Your task to perform on an android device: open wifi settings Image 0: 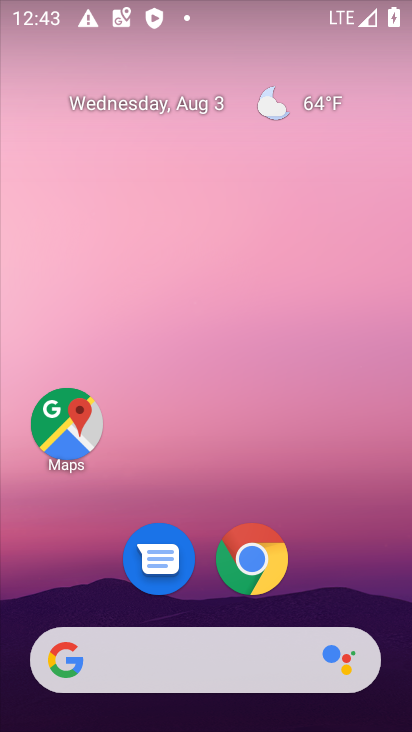
Step 0: drag from (211, 591) to (206, 59)
Your task to perform on an android device: open wifi settings Image 1: 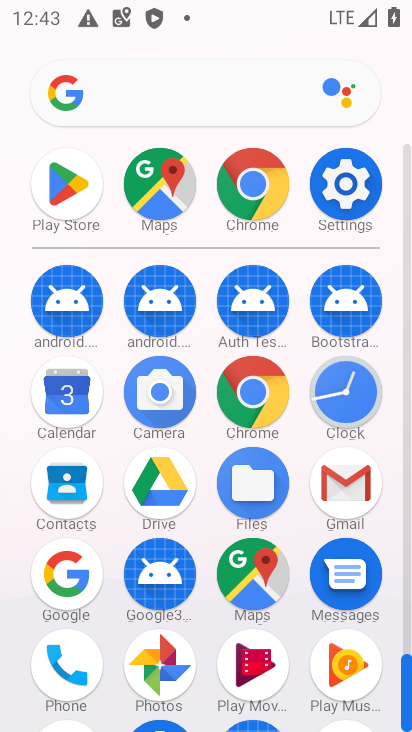
Step 1: click (346, 190)
Your task to perform on an android device: open wifi settings Image 2: 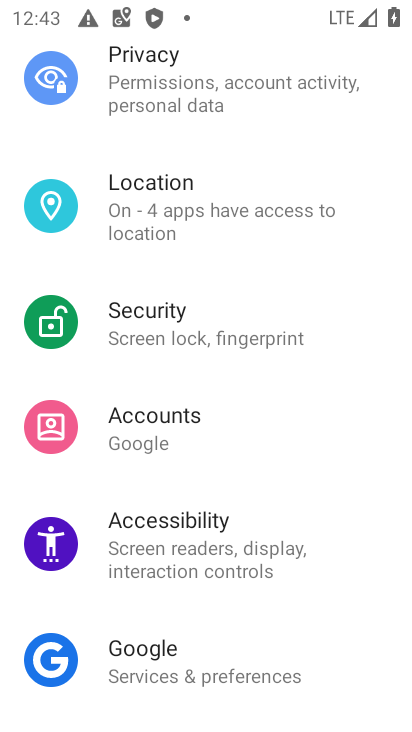
Step 2: drag from (154, 132) to (172, 528)
Your task to perform on an android device: open wifi settings Image 3: 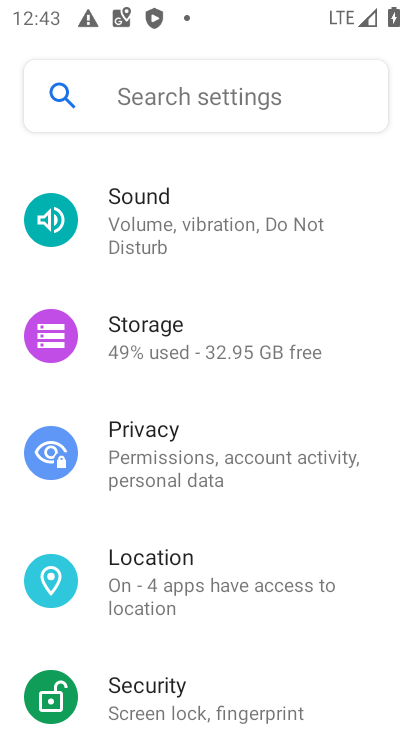
Step 3: drag from (184, 159) to (211, 537)
Your task to perform on an android device: open wifi settings Image 4: 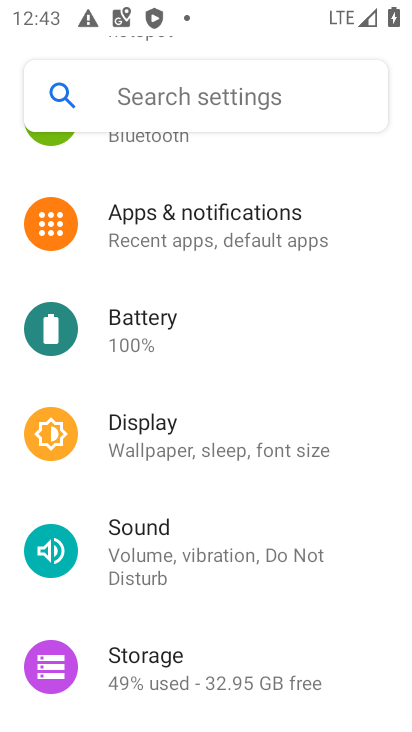
Step 4: drag from (215, 166) to (223, 511)
Your task to perform on an android device: open wifi settings Image 5: 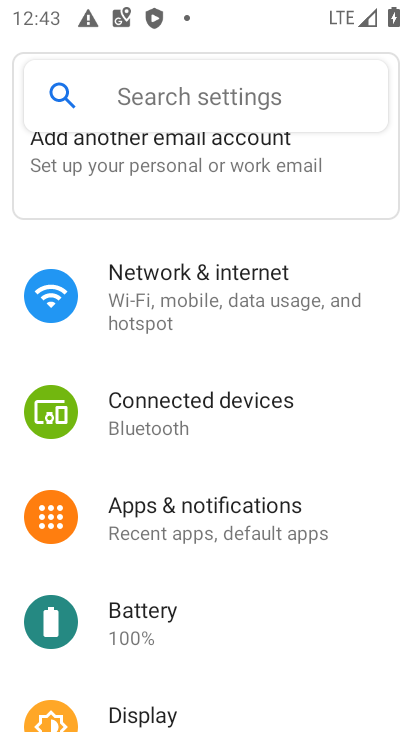
Step 5: click (181, 293)
Your task to perform on an android device: open wifi settings Image 6: 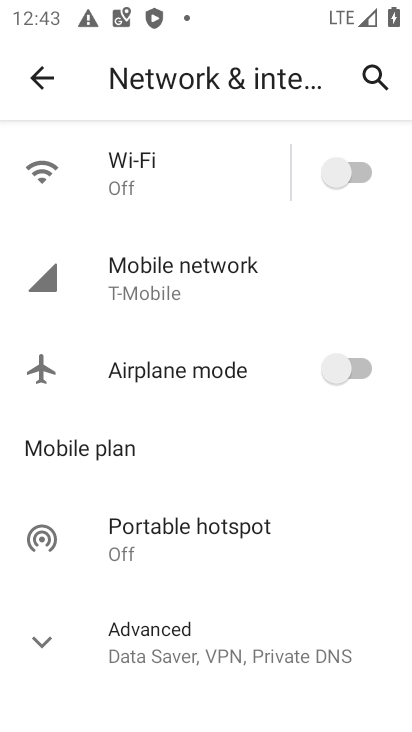
Step 6: click (128, 167)
Your task to perform on an android device: open wifi settings Image 7: 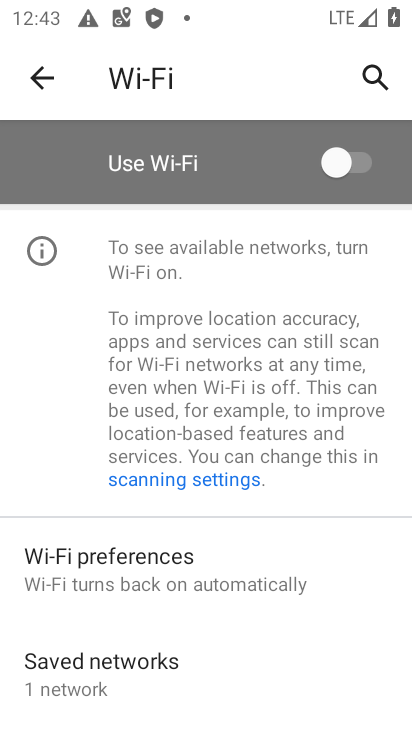
Step 7: task complete